Your task to perform on an android device: Open the stopwatch Image 0: 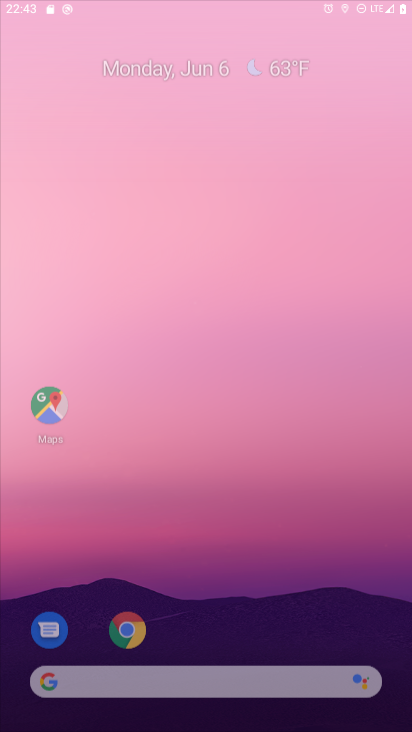
Step 0: drag from (227, 272) to (208, 221)
Your task to perform on an android device: Open the stopwatch Image 1: 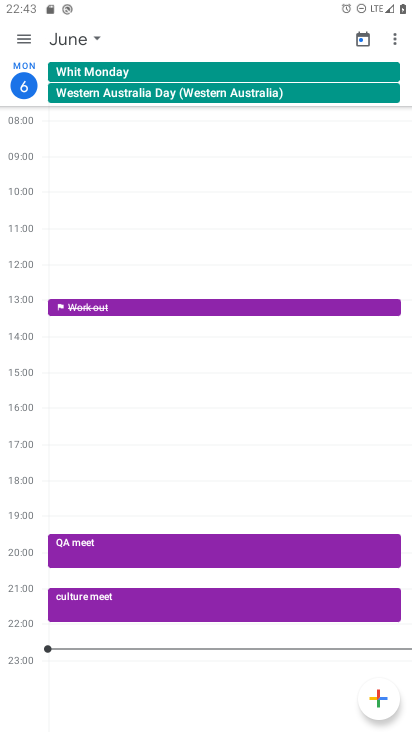
Step 1: press home button
Your task to perform on an android device: Open the stopwatch Image 2: 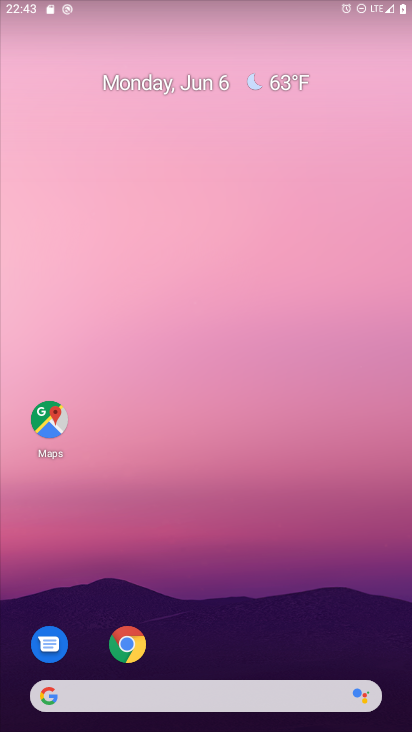
Step 2: drag from (231, 706) to (129, 131)
Your task to perform on an android device: Open the stopwatch Image 3: 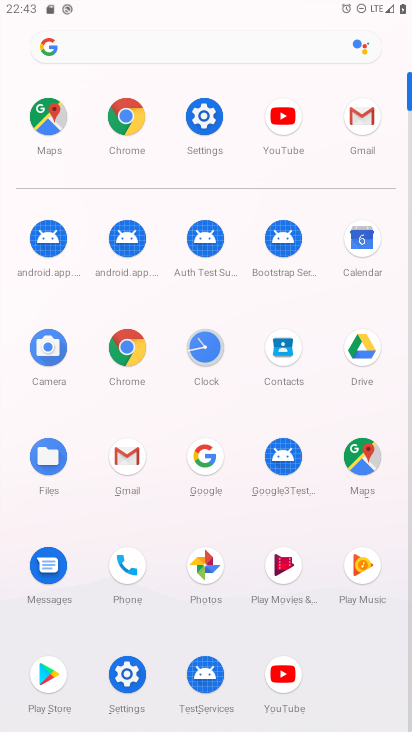
Step 3: click (214, 359)
Your task to perform on an android device: Open the stopwatch Image 4: 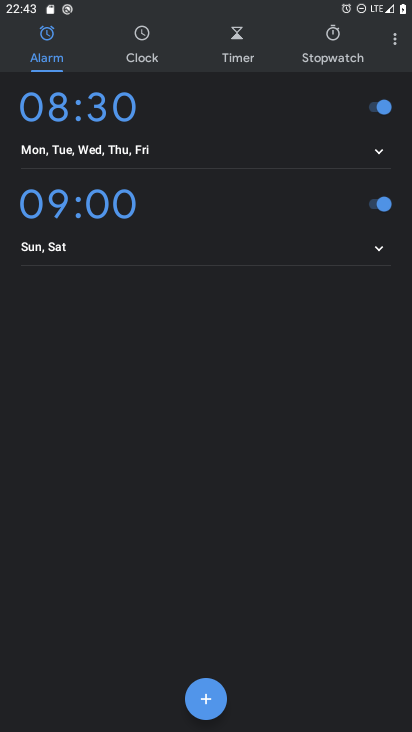
Step 4: click (330, 46)
Your task to perform on an android device: Open the stopwatch Image 5: 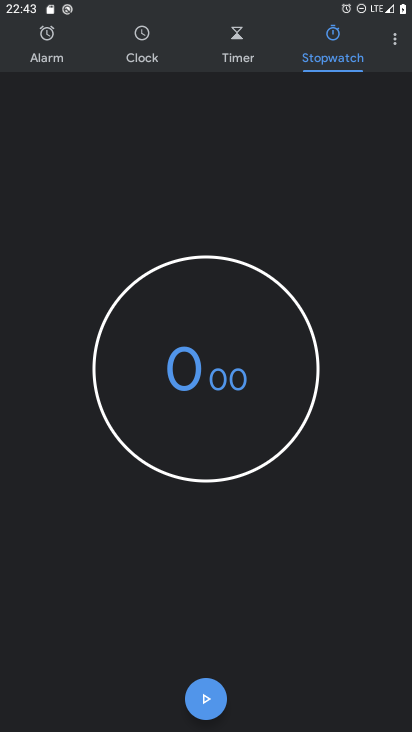
Step 5: click (217, 693)
Your task to perform on an android device: Open the stopwatch Image 6: 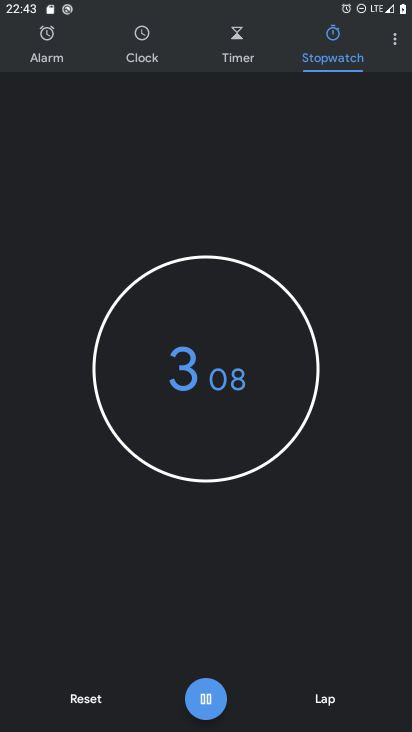
Step 6: click (211, 693)
Your task to perform on an android device: Open the stopwatch Image 7: 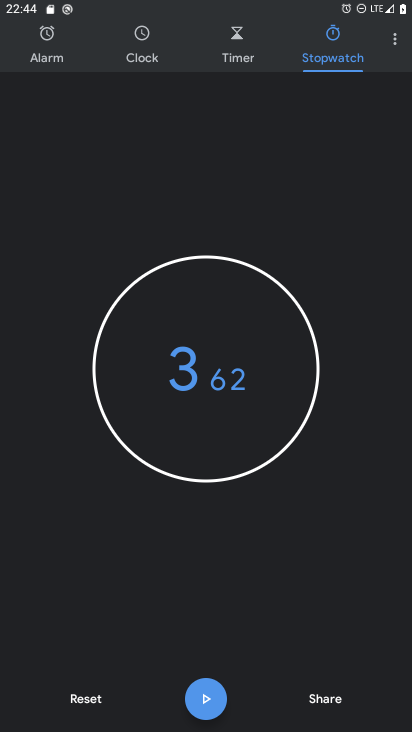
Step 7: task complete